Your task to perform on an android device: Go to location settings Image 0: 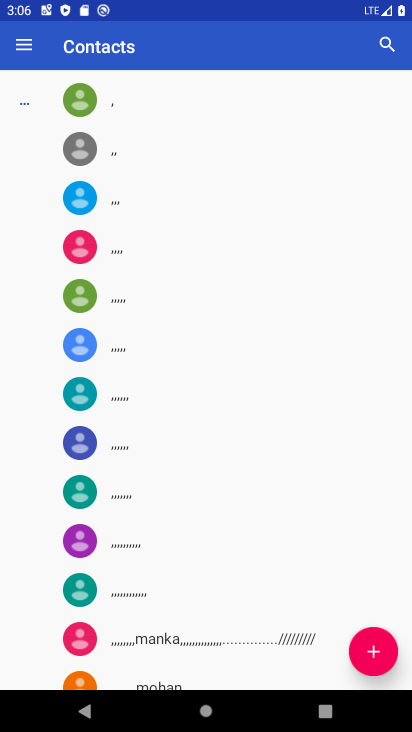
Step 0: press home button
Your task to perform on an android device: Go to location settings Image 1: 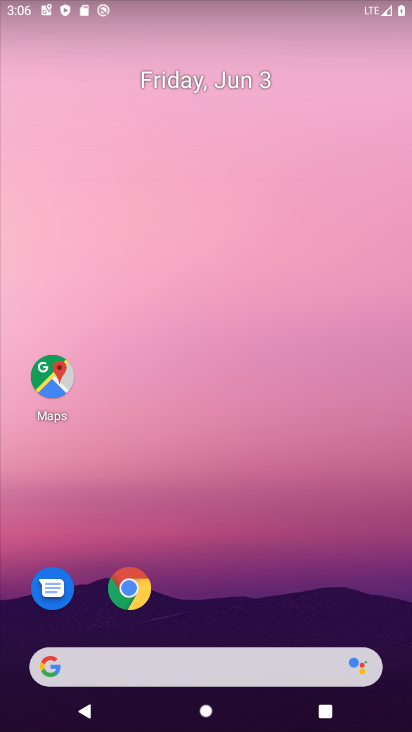
Step 1: drag from (9, 616) to (364, 210)
Your task to perform on an android device: Go to location settings Image 2: 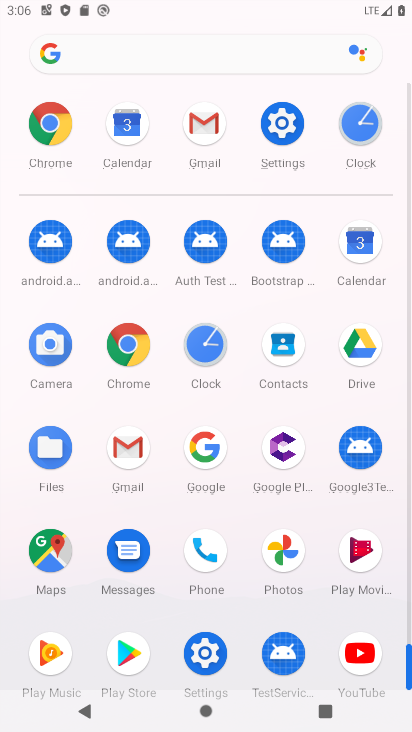
Step 2: click (271, 129)
Your task to perform on an android device: Go to location settings Image 3: 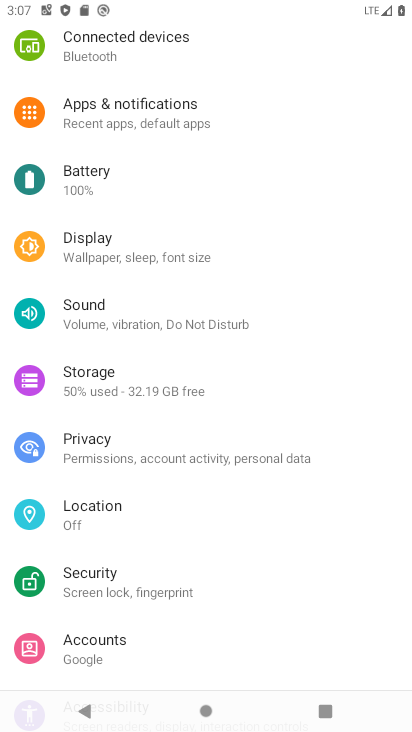
Step 3: click (48, 509)
Your task to perform on an android device: Go to location settings Image 4: 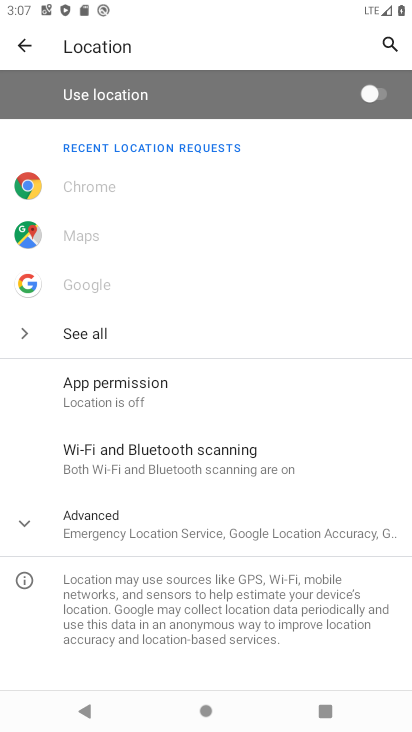
Step 4: task complete